Your task to perform on an android device: check google app version Image 0: 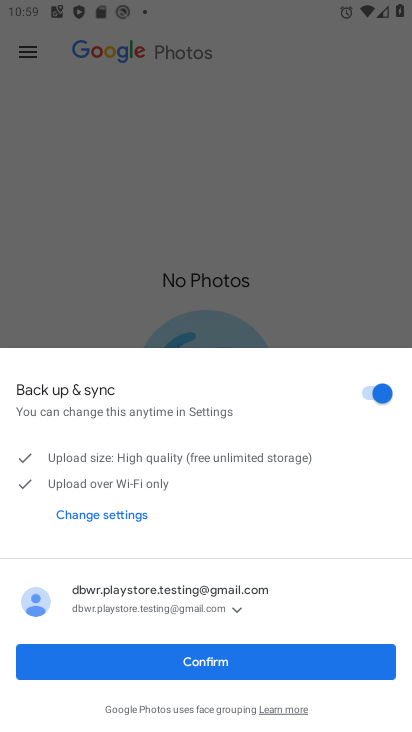
Step 0: press home button
Your task to perform on an android device: check google app version Image 1: 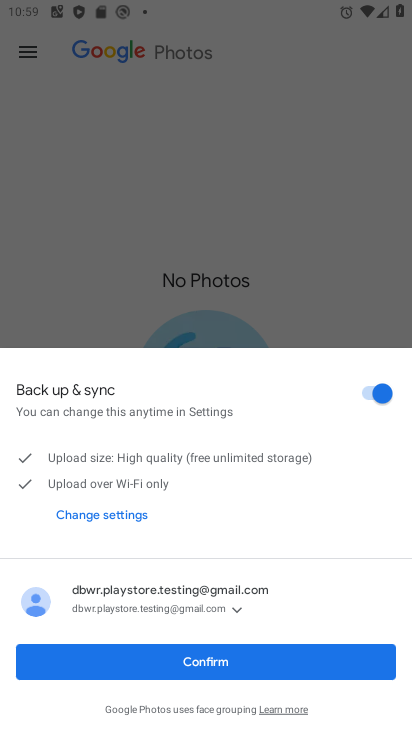
Step 1: press home button
Your task to perform on an android device: check google app version Image 2: 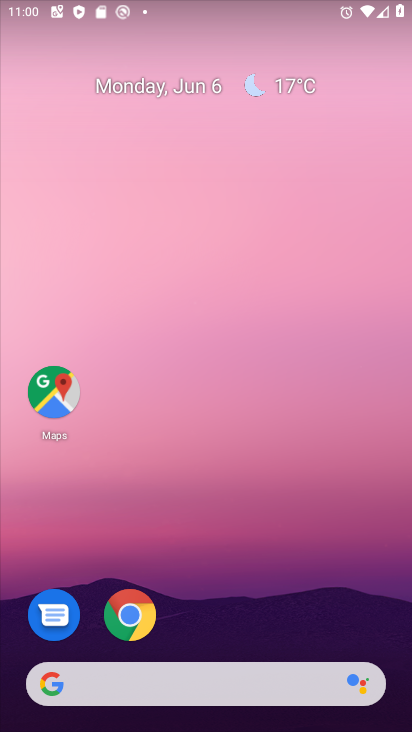
Step 2: drag from (243, 637) to (264, 79)
Your task to perform on an android device: check google app version Image 3: 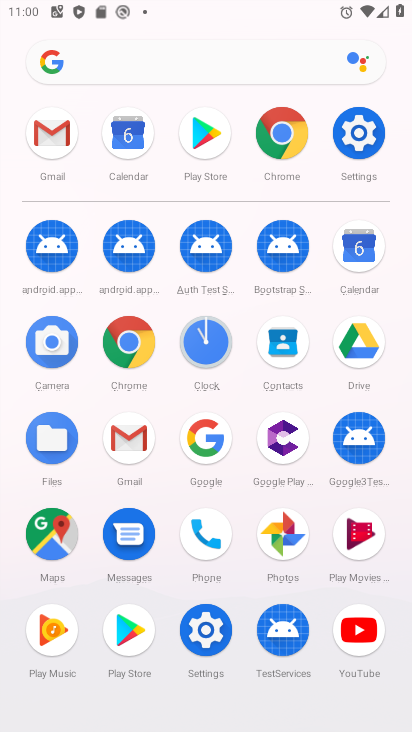
Step 3: click (204, 429)
Your task to perform on an android device: check google app version Image 4: 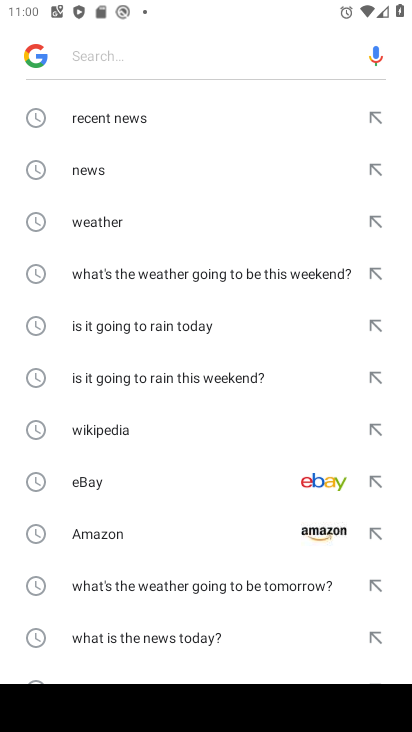
Step 4: press back button
Your task to perform on an android device: check google app version Image 5: 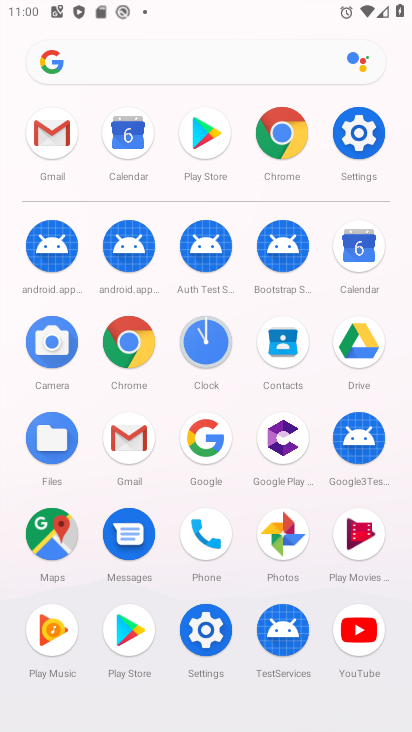
Step 5: click (203, 433)
Your task to perform on an android device: check google app version Image 6: 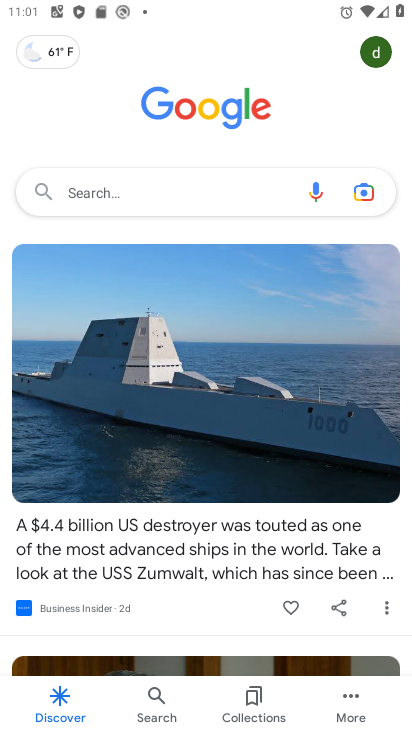
Step 6: click (349, 687)
Your task to perform on an android device: check google app version Image 7: 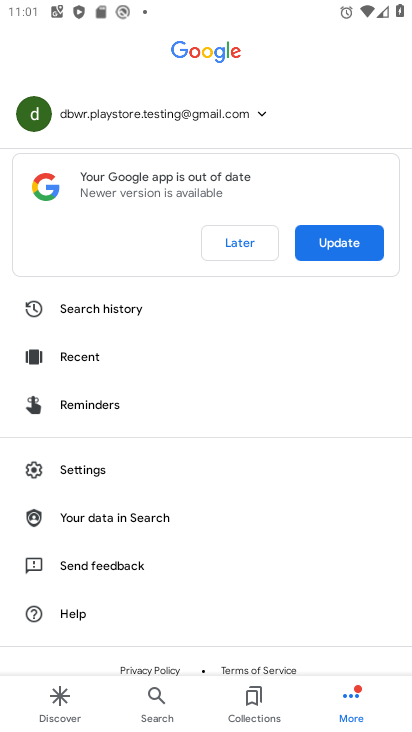
Step 7: click (118, 464)
Your task to perform on an android device: check google app version Image 8: 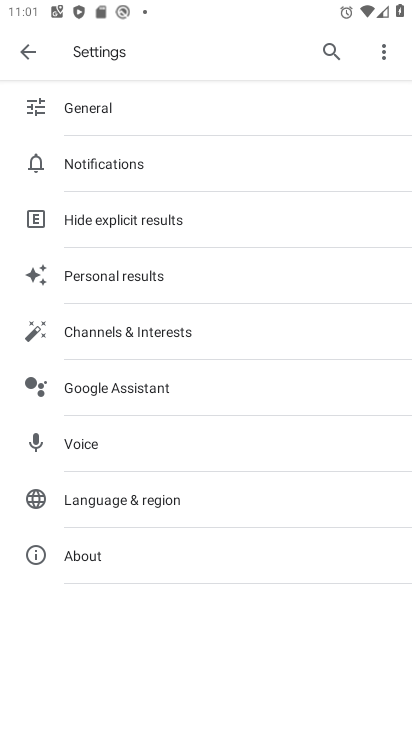
Step 8: click (110, 552)
Your task to perform on an android device: check google app version Image 9: 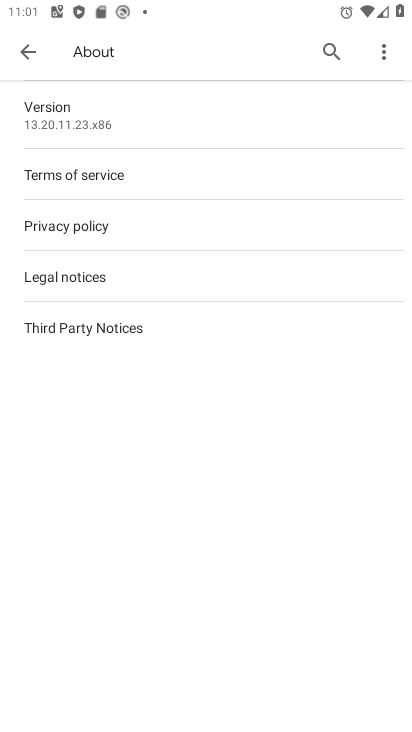
Step 9: task complete